Your task to perform on an android device: Go to Google maps Image 0: 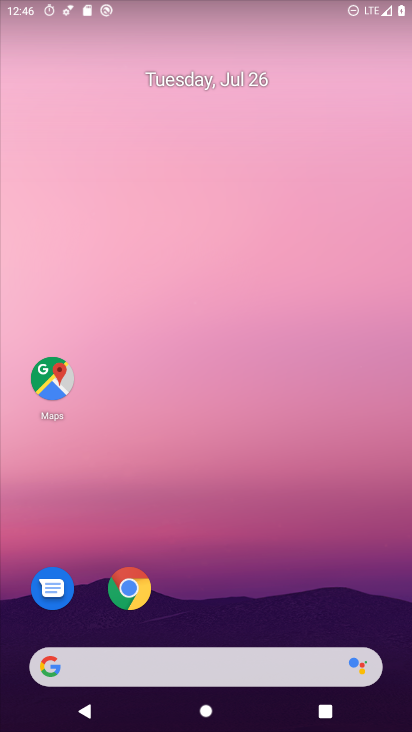
Step 0: drag from (177, 599) to (262, 171)
Your task to perform on an android device: Go to Google maps Image 1: 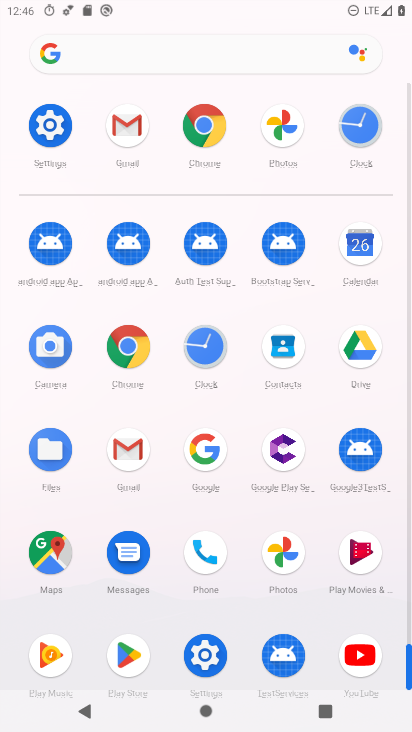
Step 1: click (59, 557)
Your task to perform on an android device: Go to Google maps Image 2: 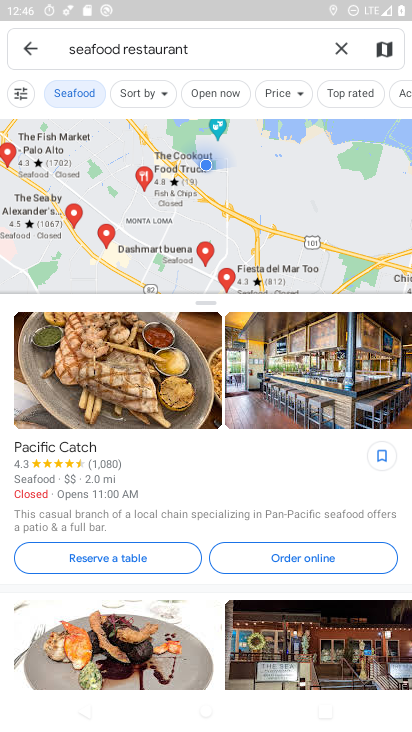
Step 2: task complete